Your task to perform on an android device: Search for the best selling book on Amazon. Image 0: 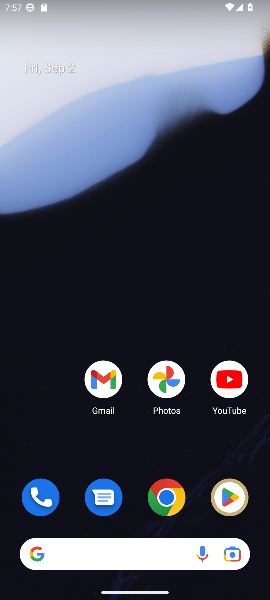
Step 0: drag from (246, 462) to (125, 520)
Your task to perform on an android device: Search for the best selling book on Amazon. Image 1: 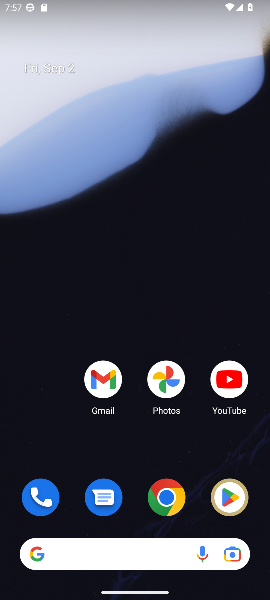
Step 1: drag from (130, 500) to (147, 77)
Your task to perform on an android device: Search for the best selling book on Amazon. Image 2: 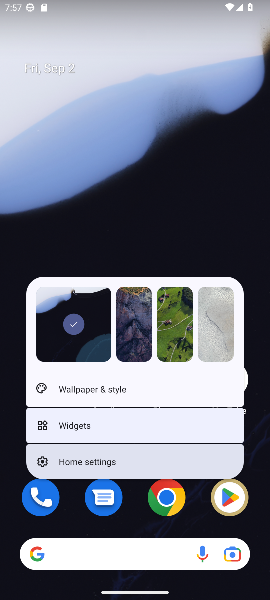
Step 2: click (117, 518)
Your task to perform on an android device: Search for the best selling book on Amazon. Image 3: 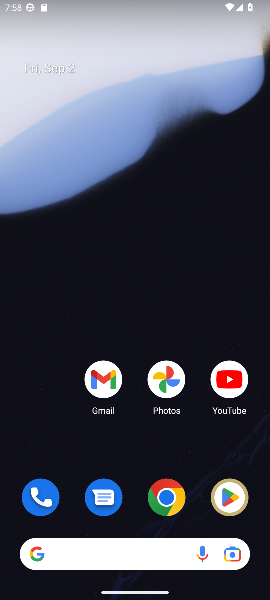
Step 3: drag from (117, 514) to (120, 161)
Your task to perform on an android device: Search for the best selling book on Amazon. Image 4: 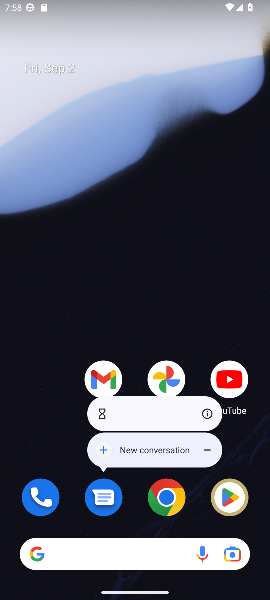
Step 4: click (151, 525)
Your task to perform on an android device: Search for the best selling book on Amazon. Image 5: 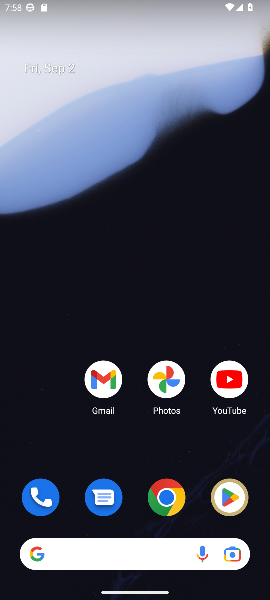
Step 5: drag from (151, 512) to (168, 216)
Your task to perform on an android device: Search for the best selling book on Amazon. Image 6: 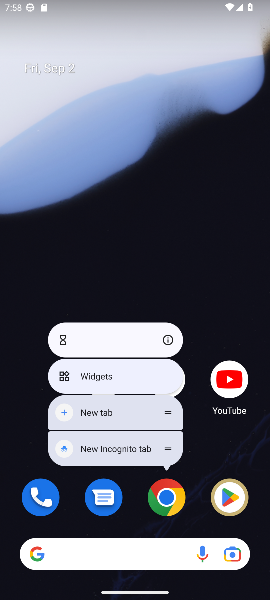
Step 6: click (124, 526)
Your task to perform on an android device: Search for the best selling book on Amazon. Image 7: 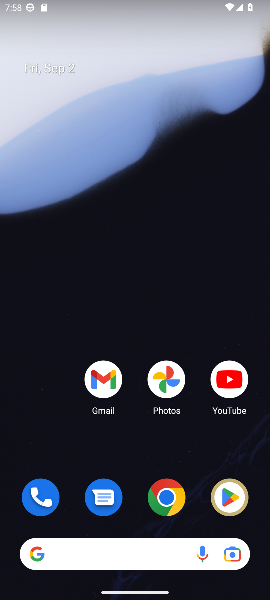
Step 7: drag from (124, 519) to (135, 63)
Your task to perform on an android device: Search for the best selling book on Amazon. Image 8: 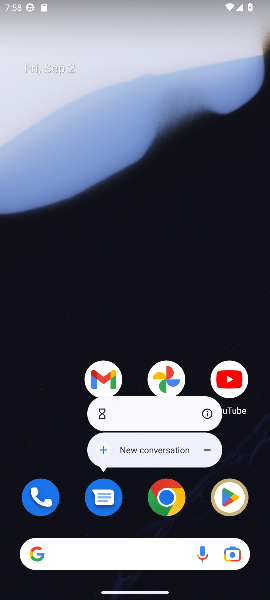
Step 8: click (136, 241)
Your task to perform on an android device: Search for the best selling book on Amazon. Image 9: 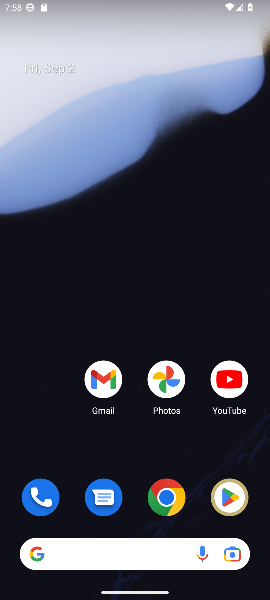
Step 9: drag from (138, 497) to (151, 252)
Your task to perform on an android device: Search for the best selling book on Amazon. Image 10: 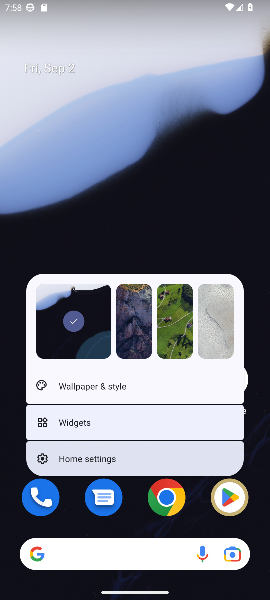
Step 10: click (132, 511)
Your task to perform on an android device: Search for the best selling book on Amazon. Image 11: 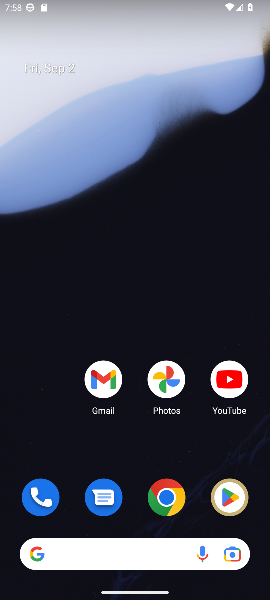
Step 11: drag from (132, 511) to (127, 41)
Your task to perform on an android device: Search for the best selling book on Amazon. Image 12: 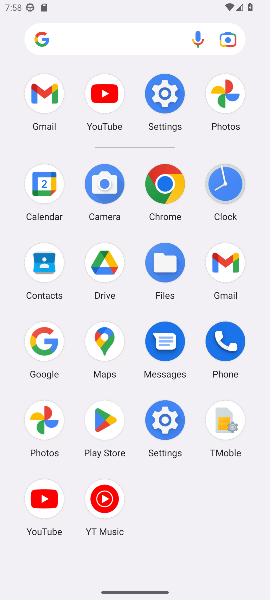
Step 12: click (46, 337)
Your task to perform on an android device: Search for the best selling book on Amazon. Image 13: 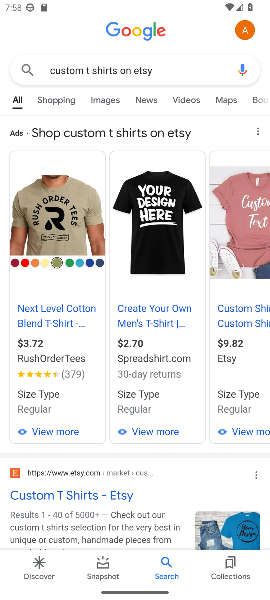
Step 13: click (168, 68)
Your task to perform on an android device: Search for the best selling book on Amazon. Image 14: 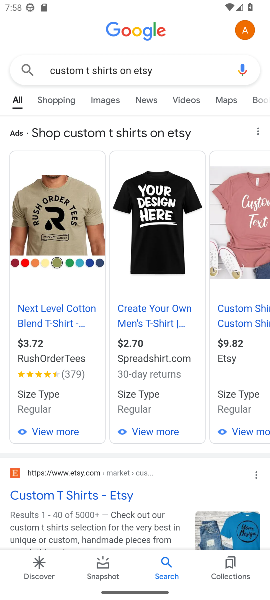
Step 14: click (168, 68)
Your task to perform on an android device: Search for the best selling book on Amazon. Image 15: 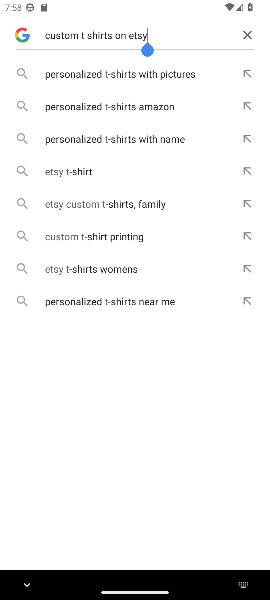
Step 15: click (245, 36)
Your task to perform on an android device: Search for the best selling book on Amazon. Image 16: 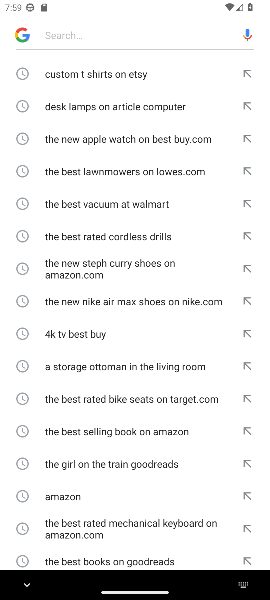
Step 16: type "the best selling book on Amazon"
Your task to perform on an android device: Search for the best selling book on Amazon. Image 17: 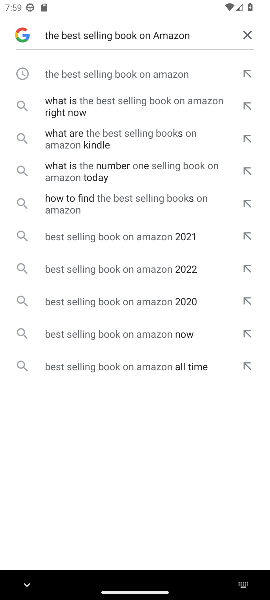
Step 17: click (95, 73)
Your task to perform on an android device: Search for the best selling book on Amazon. Image 18: 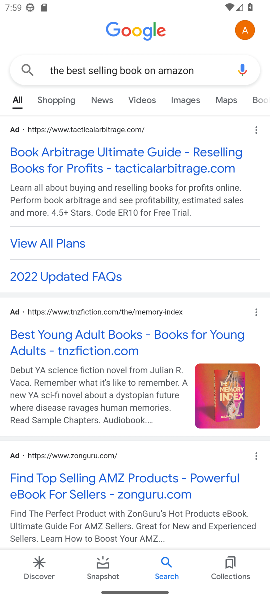
Step 18: task complete